Your task to perform on an android device: Go to sound settings Image 0: 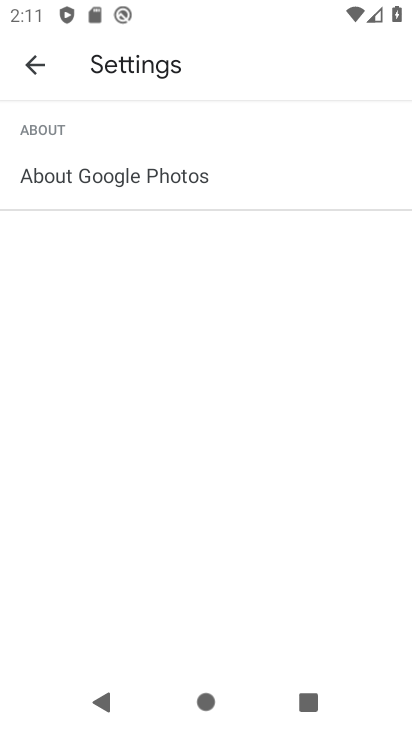
Step 0: press home button
Your task to perform on an android device: Go to sound settings Image 1: 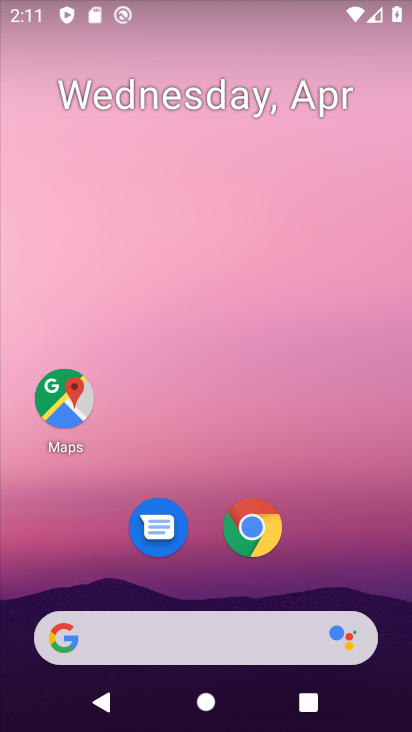
Step 1: drag from (366, 528) to (316, 83)
Your task to perform on an android device: Go to sound settings Image 2: 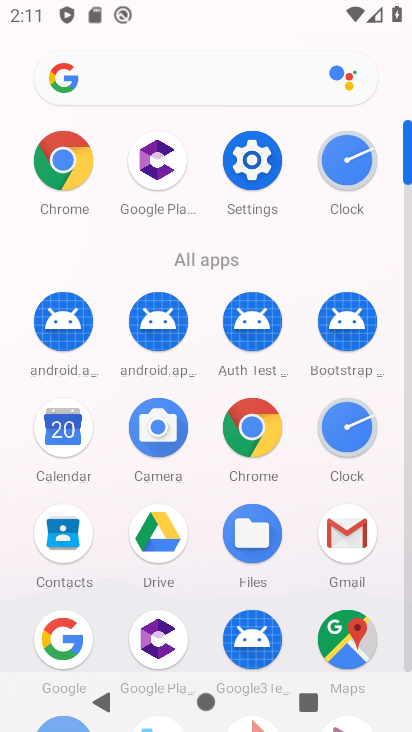
Step 2: click (260, 173)
Your task to perform on an android device: Go to sound settings Image 3: 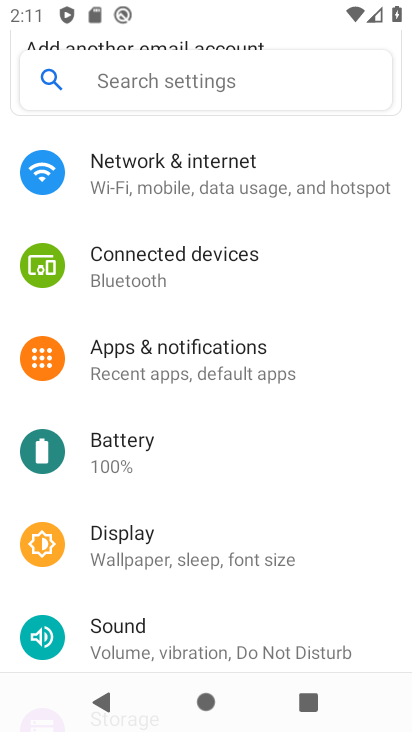
Step 3: drag from (235, 603) to (222, 336)
Your task to perform on an android device: Go to sound settings Image 4: 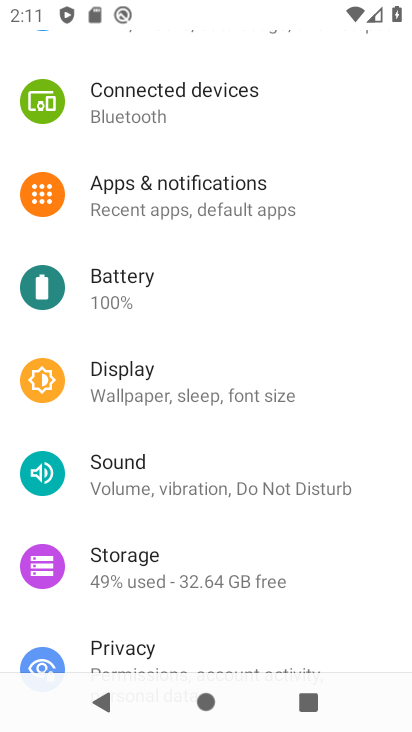
Step 4: click (163, 484)
Your task to perform on an android device: Go to sound settings Image 5: 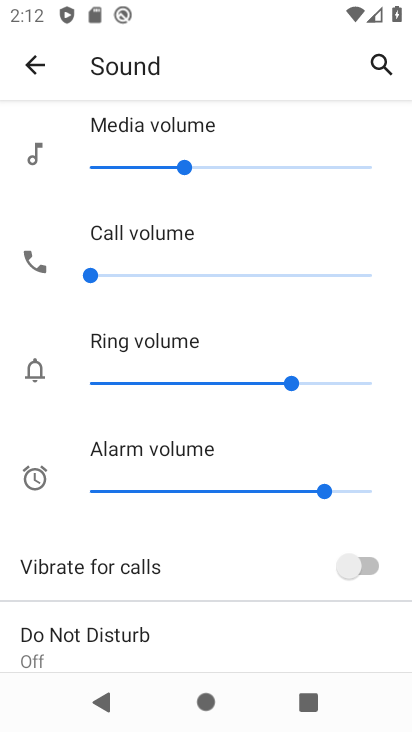
Step 5: task complete